Your task to perform on an android device: Do I have any events this weekend? Image 0: 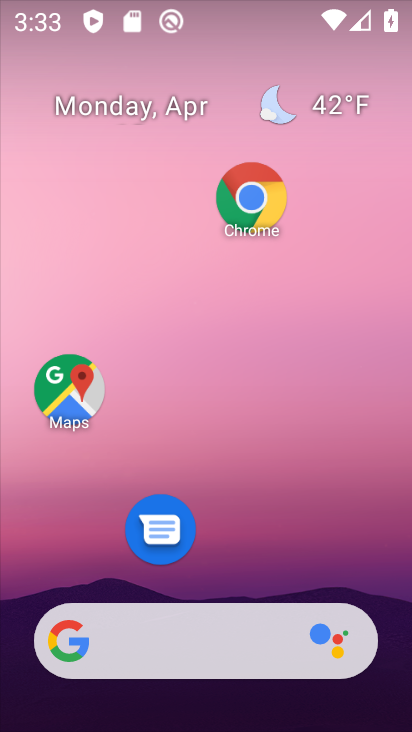
Step 0: drag from (218, 576) to (237, 151)
Your task to perform on an android device: Do I have any events this weekend? Image 1: 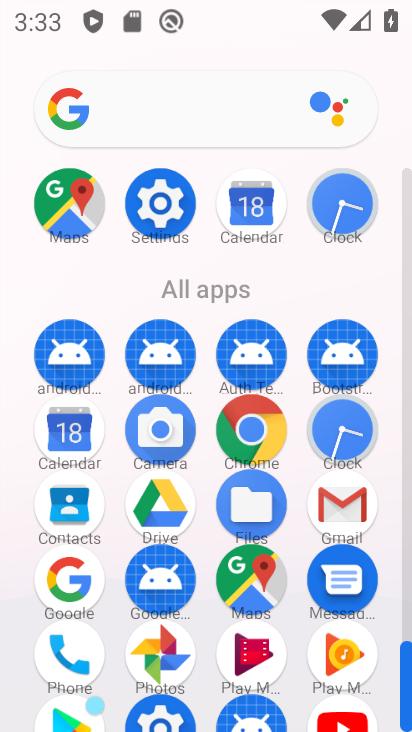
Step 1: click (61, 445)
Your task to perform on an android device: Do I have any events this weekend? Image 2: 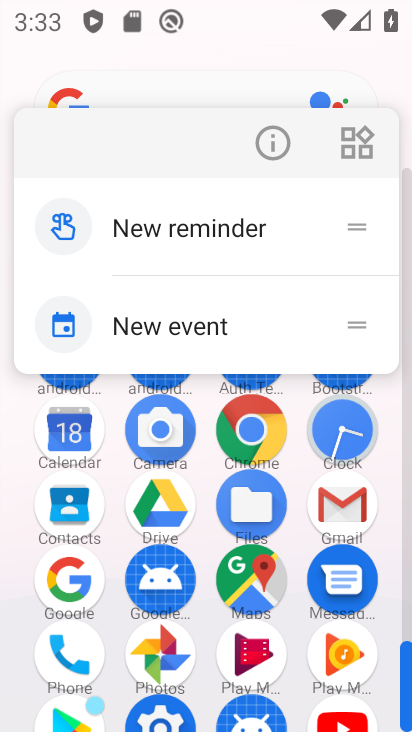
Step 2: click (70, 438)
Your task to perform on an android device: Do I have any events this weekend? Image 3: 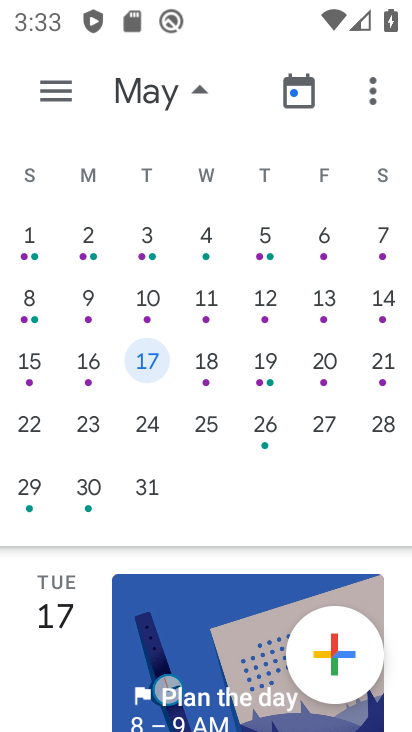
Step 3: click (325, 365)
Your task to perform on an android device: Do I have any events this weekend? Image 4: 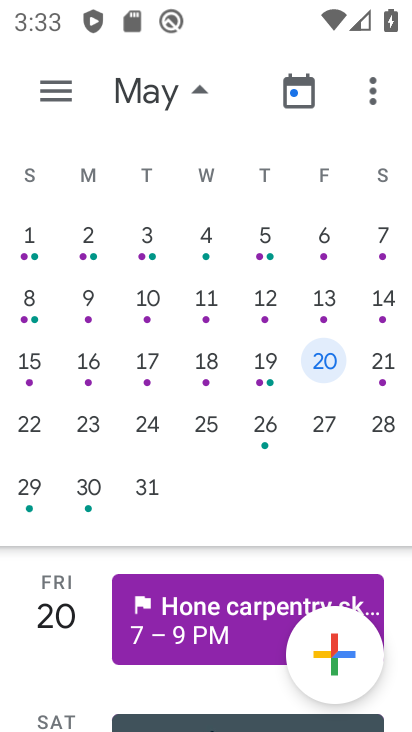
Step 4: click (351, 367)
Your task to perform on an android device: Do I have any events this weekend? Image 5: 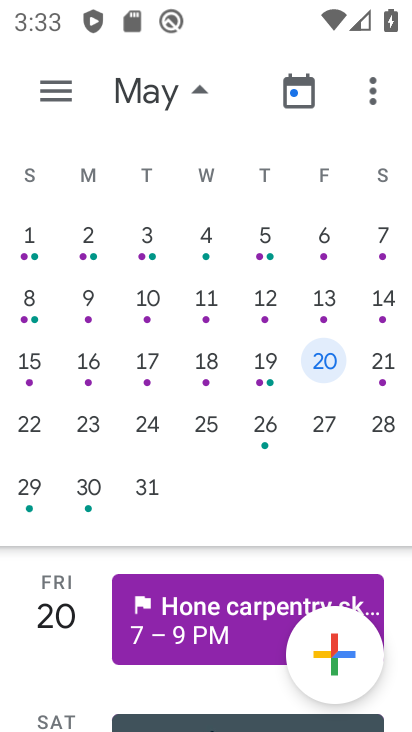
Step 5: click (384, 373)
Your task to perform on an android device: Do I have any events this weekend? Image 6: 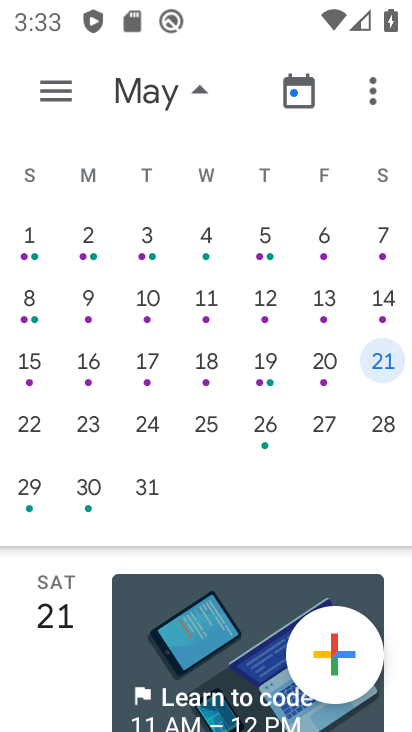
Step 6: drag from (240, 584) to (229, 388)
Your task to perform on an android device: Do I have any events this weekend? Image 7: 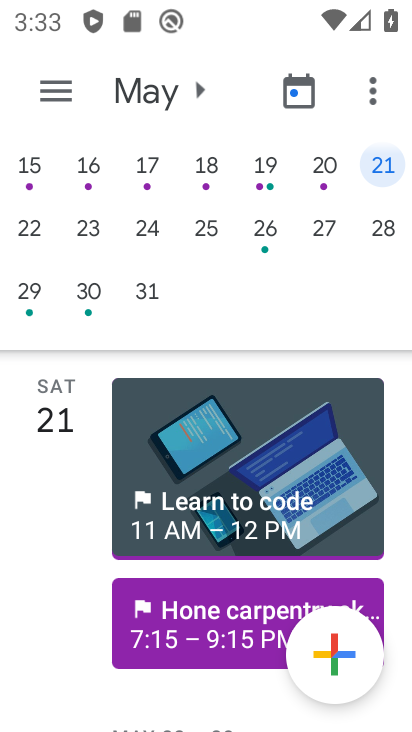
Step 7: click (225, 472)
Your task to perform on an android device: Do I have any events this weekend? Image 8: 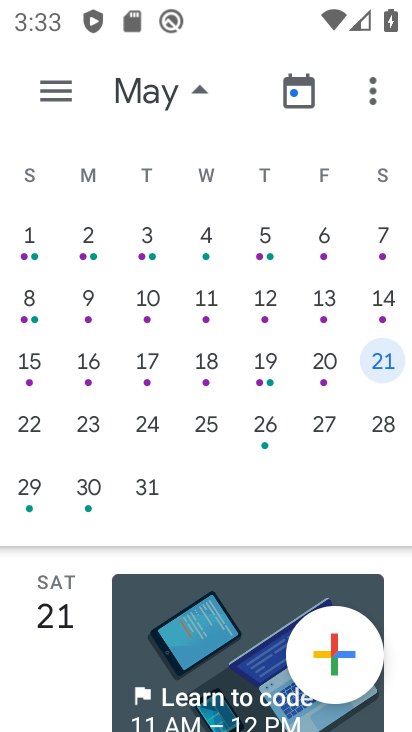
Step 8: click (209, 680)
Your task to perform on an android device: Do I have any events this weekend? Image 9: 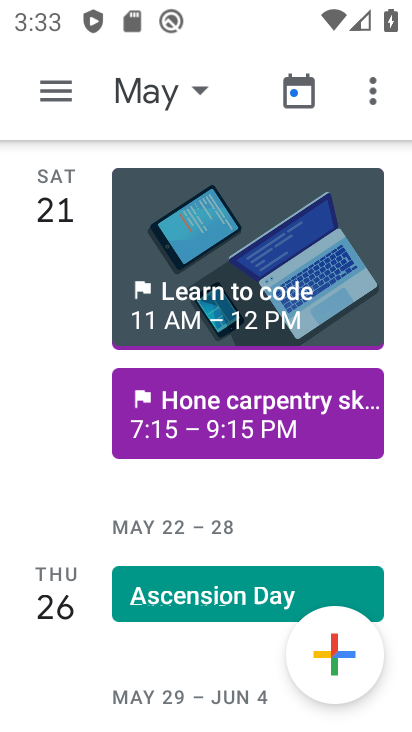
Step 9: task complete